Your task to perform on an android device: turn on improve location accuracy Image 0: 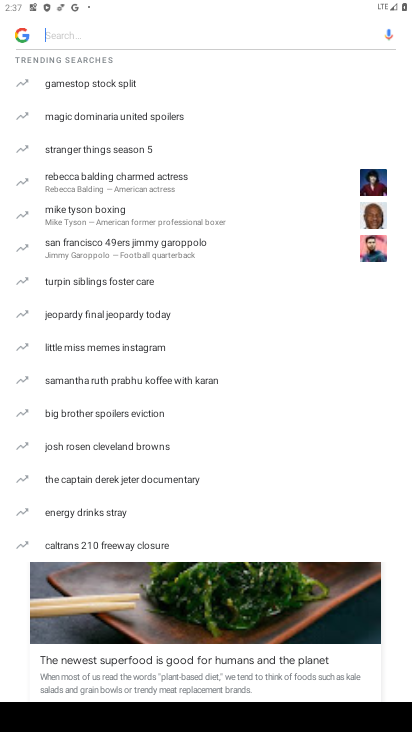
Step 0: press home button
Your task to perform on an android device: turn on improve location accuracy Image 1: 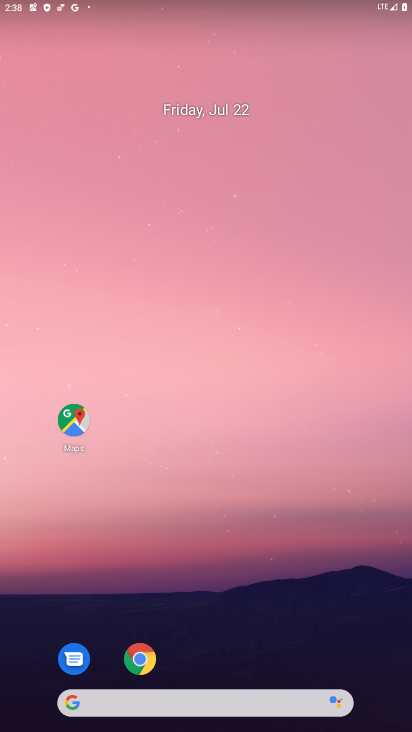
Step 1: drag from (158, 502) to (134, 148)
Your task to perform on an android device: turn on improve location accuracy Image 2: 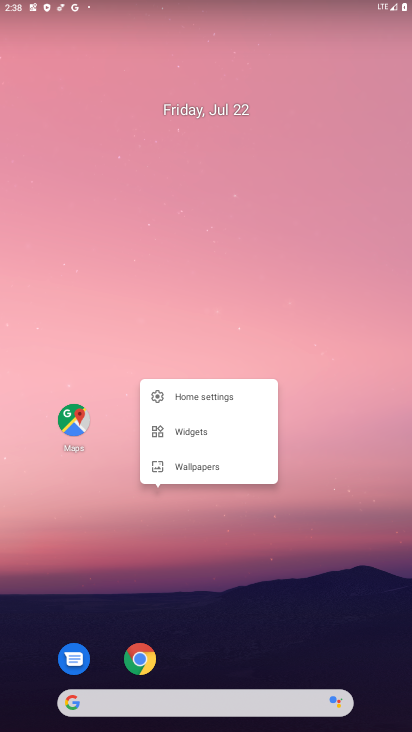
Step 2: click (203, 634)
Your task to perform on an android device: turn on improve location accuracy Image 3: 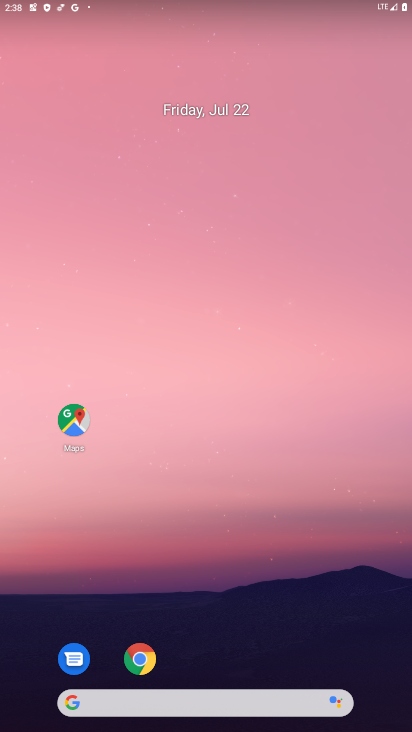
Step 3: drag from (196, 597) to (126, 6)
Your task to perform on an android device: turn on improve location accuracy Image 4: 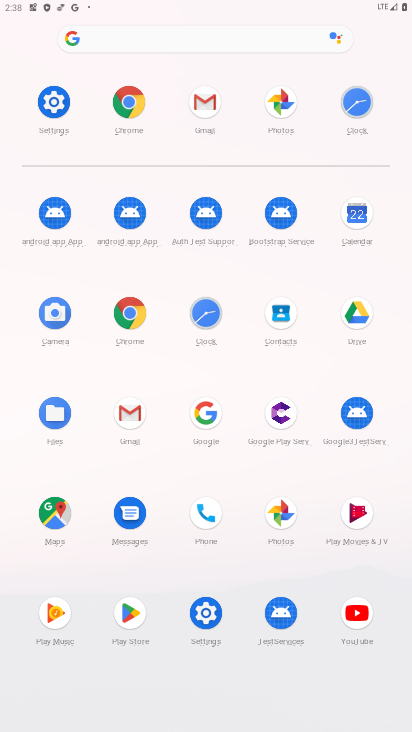
Step 4: click (51, 100)
Your task to perform on an android device: turn on improve location accuracy Image 5: 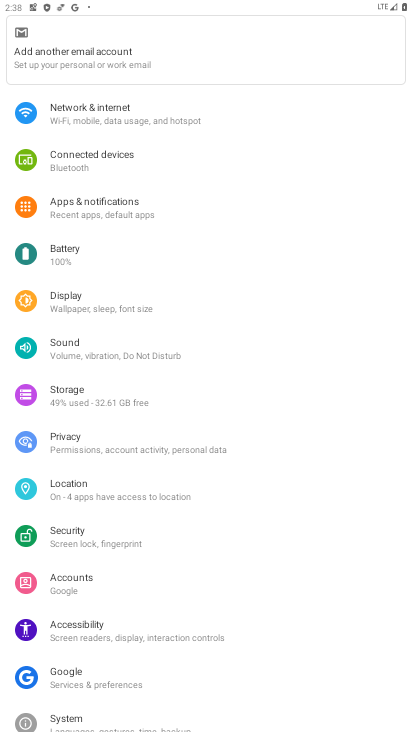
Step 5: click (67, 492)
Your task to perform on an android device: turn on improve location accuracy Image 6: 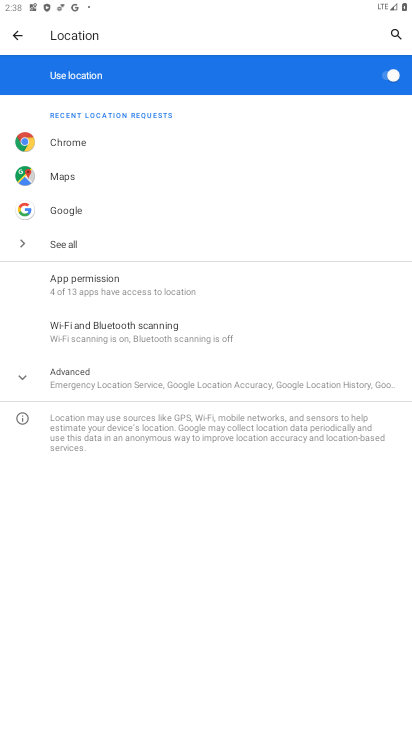
Step 6: click (114, 374)
Your task to perform on an android device: turn on improve location accuracy Image 7: 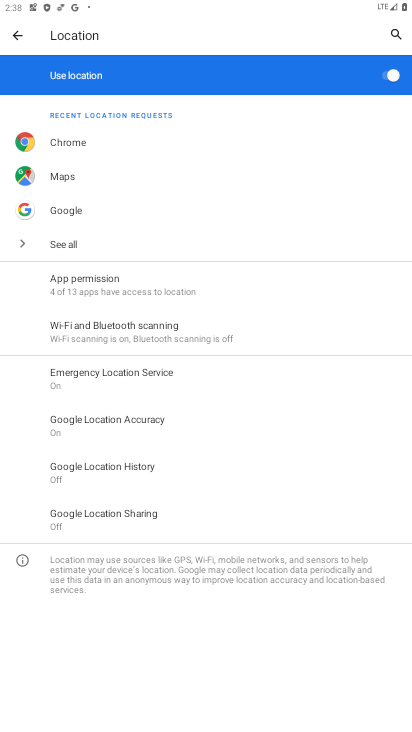
Step 7: click (87, 423)
Your task to perform on an android device: turn on improve location accuracy Image 8: 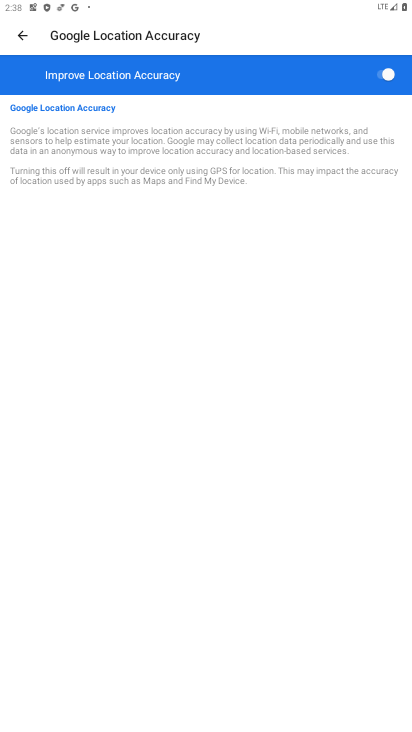
Step 8: task complete